Your task to perform on an android device: add a label to a message in the gmail app Image 0: 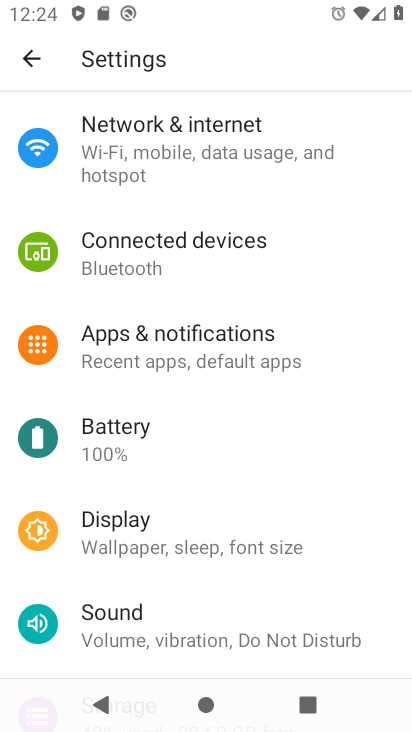
Step 0: press home button
Your task to perform on an android device: add a label to a message in the gmail app Image 1: 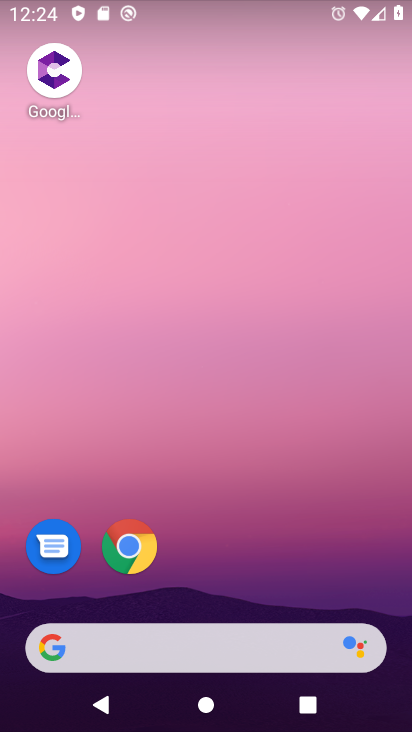
Step 1: drag from (209, 587) to (224, 200)
Your task to perform on an android device: add a label to a message in the gmail app Image 2: 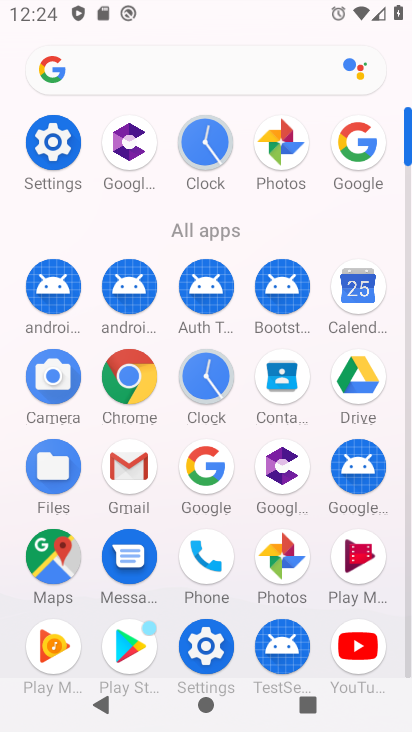
Step 2: click (122, 479)
Your task to perform on an android device: add a label to a message in the gmail app Image 3: 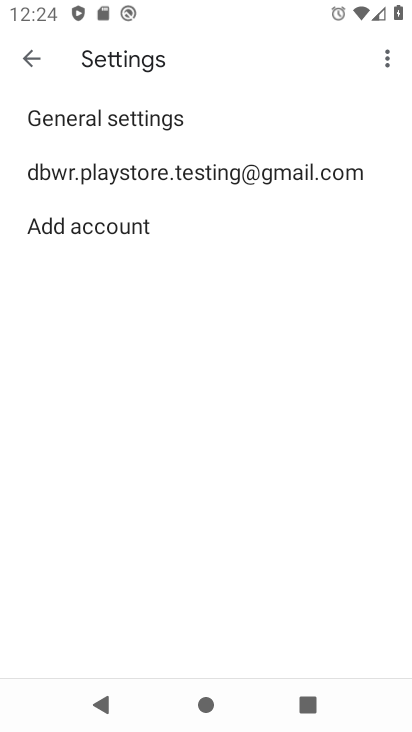
Step 3: click (33, 63)
Your task to perform on an android device: add a label to a message in the gmail app Image 4: 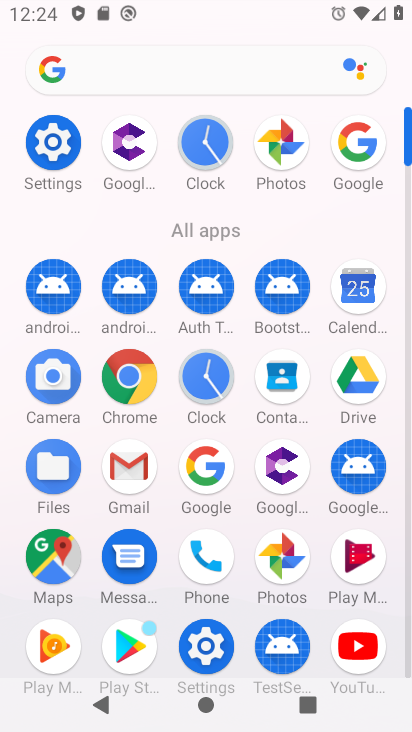
Step 4: click (137, 466)
Your task to perform on an android device: add a label to a message in the gmail app Image 5: 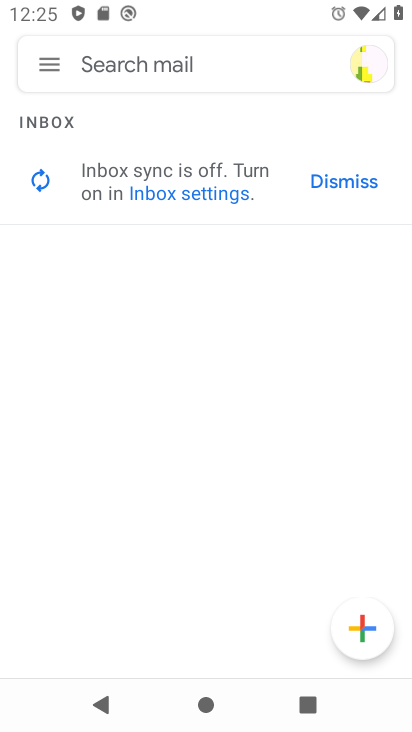
Step 5: task complete